Your task to perform on an android device: Do I have any events today? Image 0: 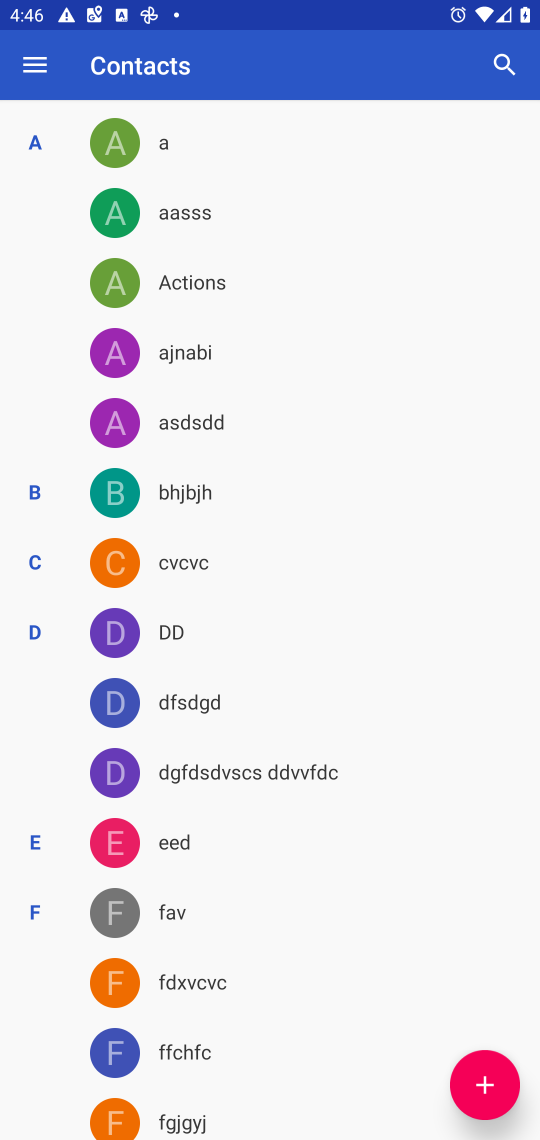
Step 0: press home button
Your task to perform on an android device: Do I have any events today? Image 1: 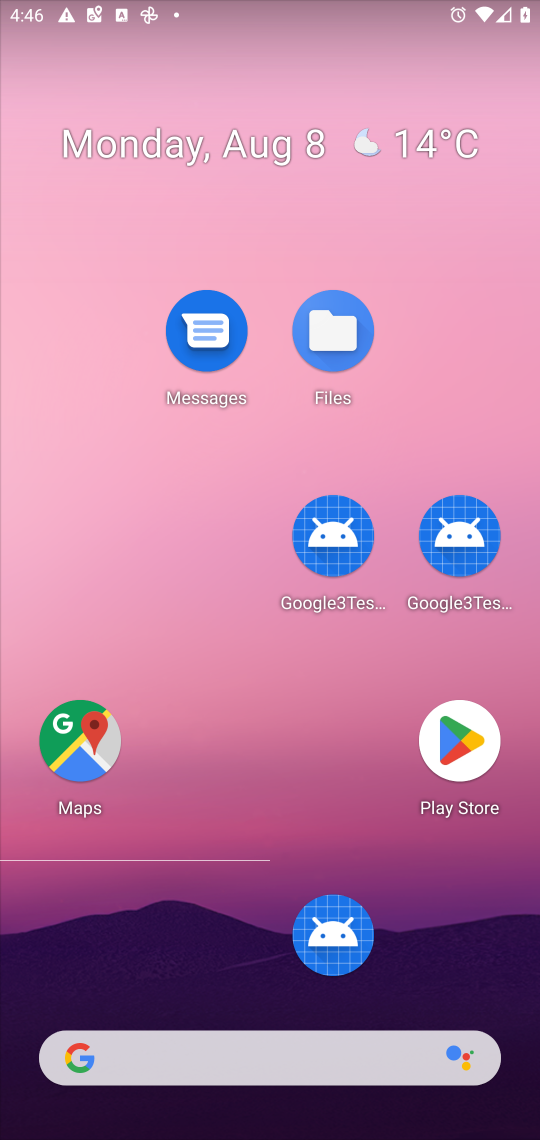
Step 1: drag from (291, 1032) to (375, 6)
Your task to perform on an android device: Do I have any events today? Image 2: 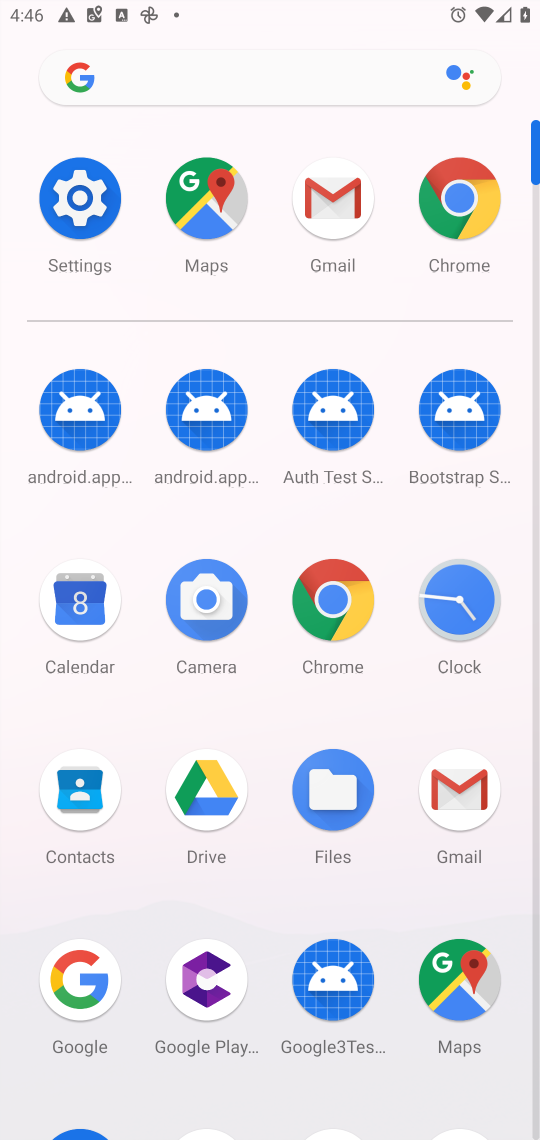
Step 2: click (79, 619)
Your task to perform on an android device: Do I have any events today? Image 3: 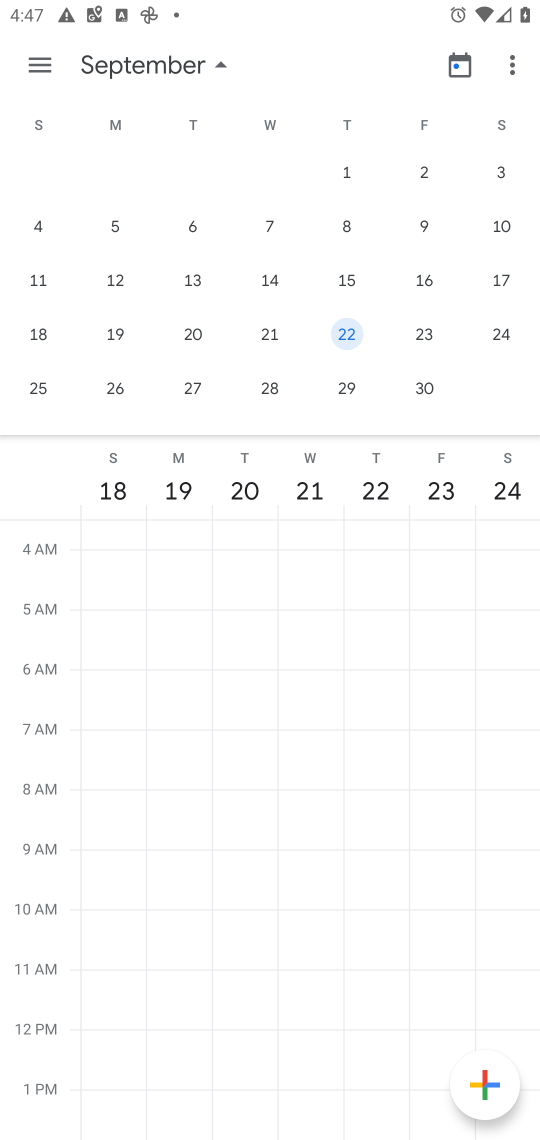
Step 3: drag from (55, 252) to (540, 395)
Your task to perform on an android device: Do I have any events today? Image 4: 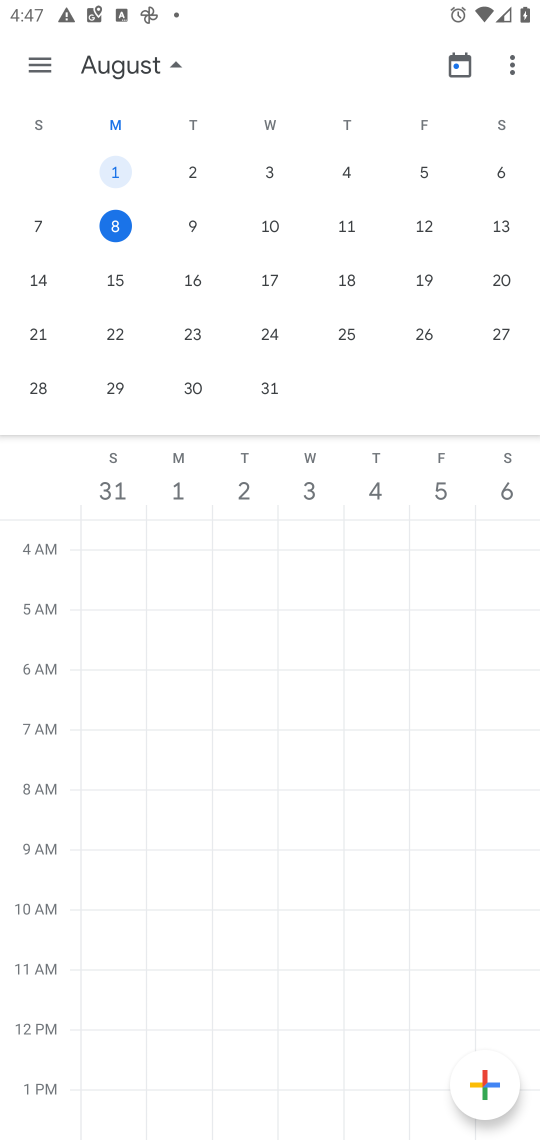
Step 4: click (187, 228)
Your task to perform on an android device: Do I have any events today? Image 5: 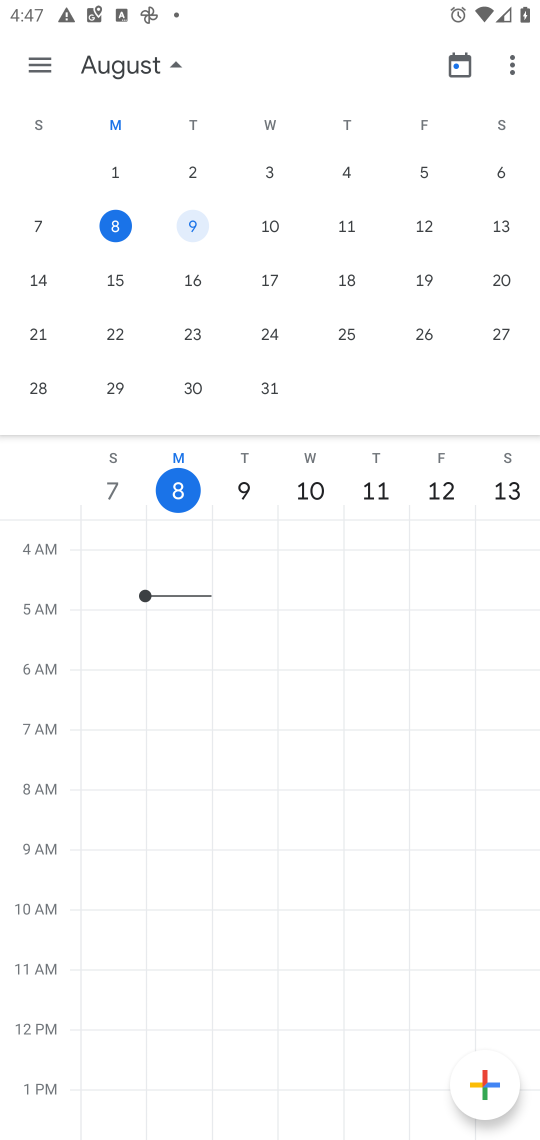
Step 5: task complete